Your task to perform on an android device: check storage Image 0: 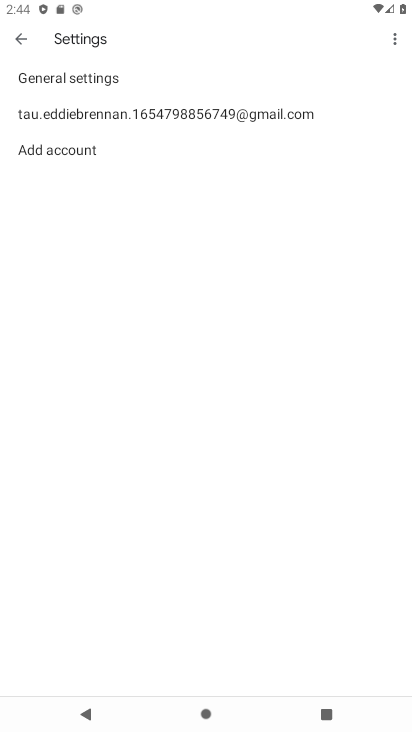
Step 0: press home button
Your task to perform on an android device: check storage Image 1: 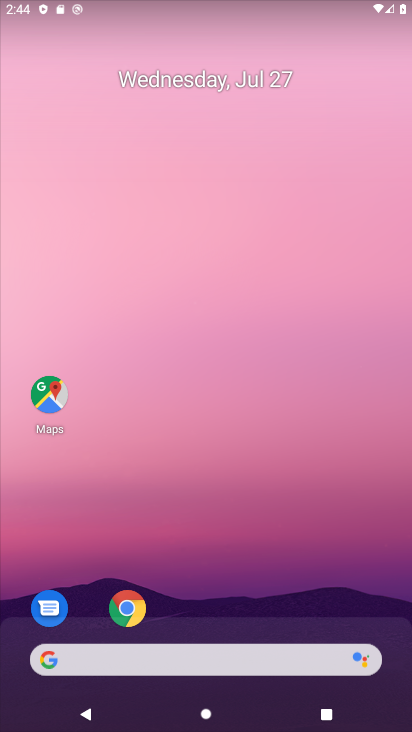
Step 1: drag from (230, 589) to (245, 87)
Your task to perform on an android device: check storage Image 2: 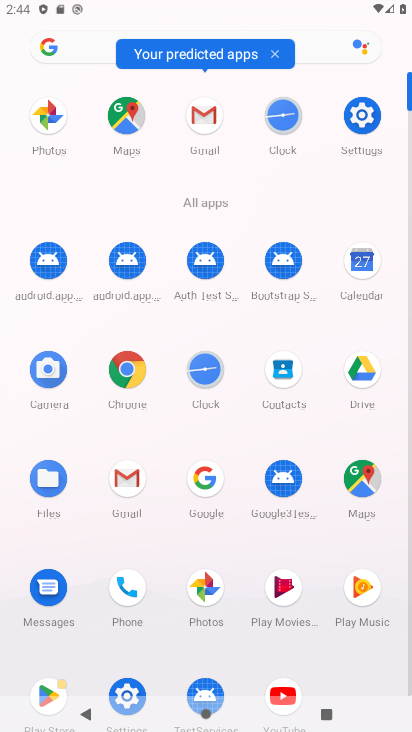
Step 2: click (357, 117)
Your task to perform on an android device: check storage Image 3: 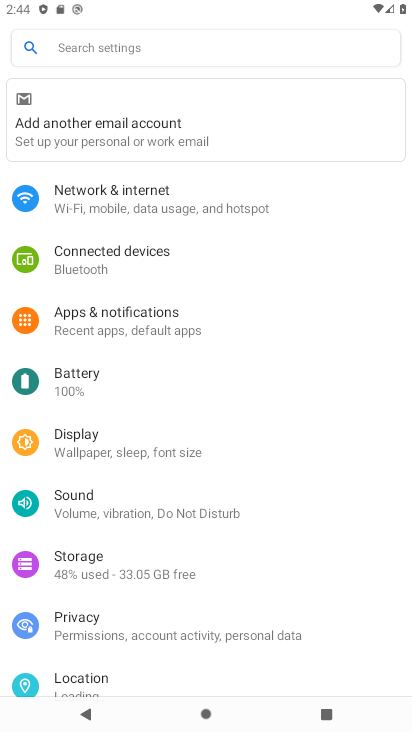
Step 3: click (93, 563)
Your task to perform on an android device: check storage Image 4: 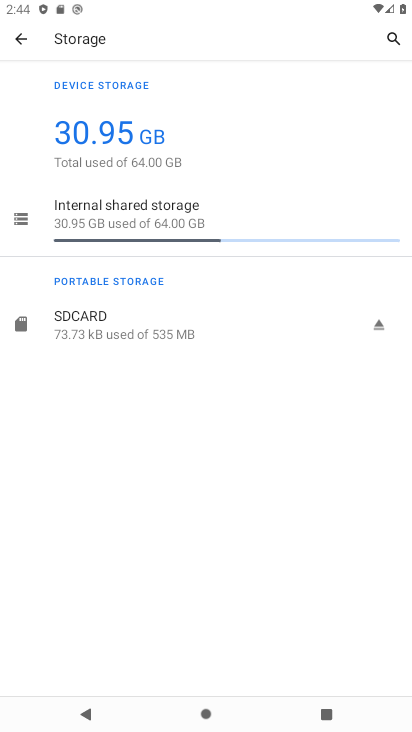
Step 4: task complete